Your task to perform on an android device: How much does a 2 bedroom apartment rent for in Houston? Image 0: 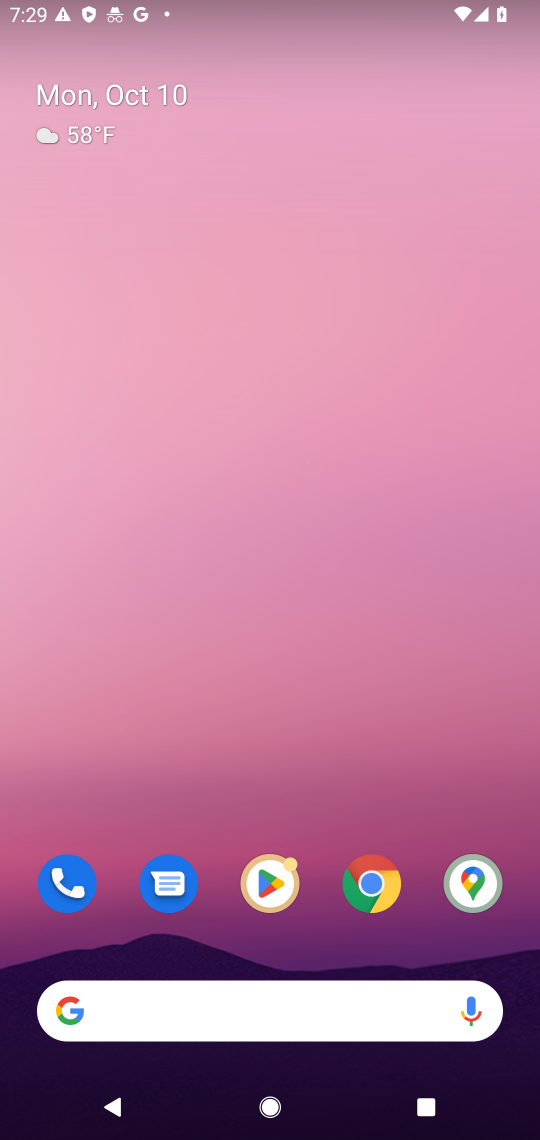
Step 0: drag from (348, 984) to (407, 340)
Your task to perform on an android device: How much does a 2 bedroom apartment rent for in Houston? Image 1: 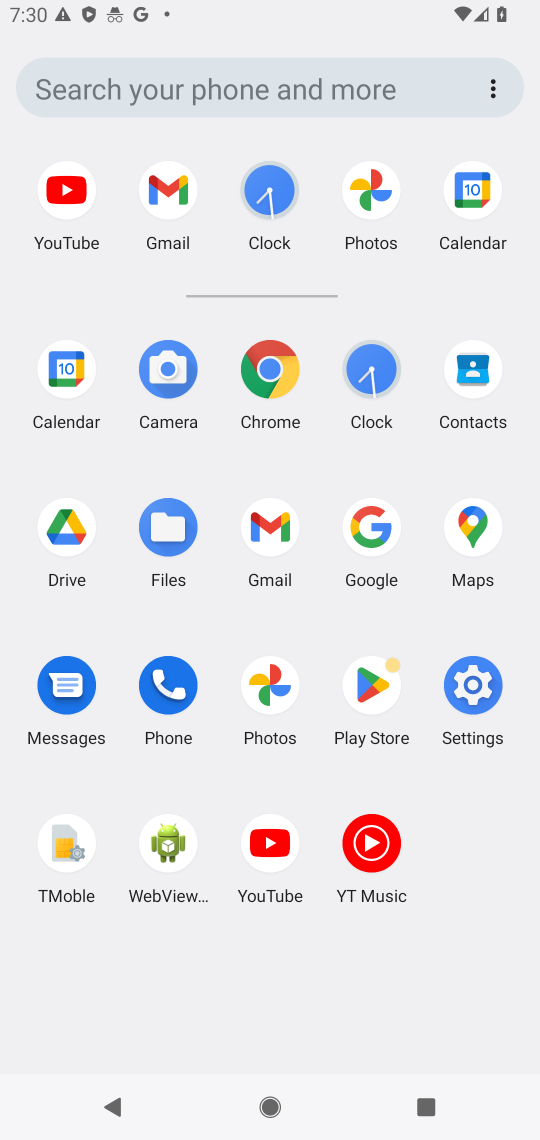
Step 1: click (385, 539)
Your task to perform on an android device: How much does a 2 bedroom apartment rent for in Houston? Image 2: 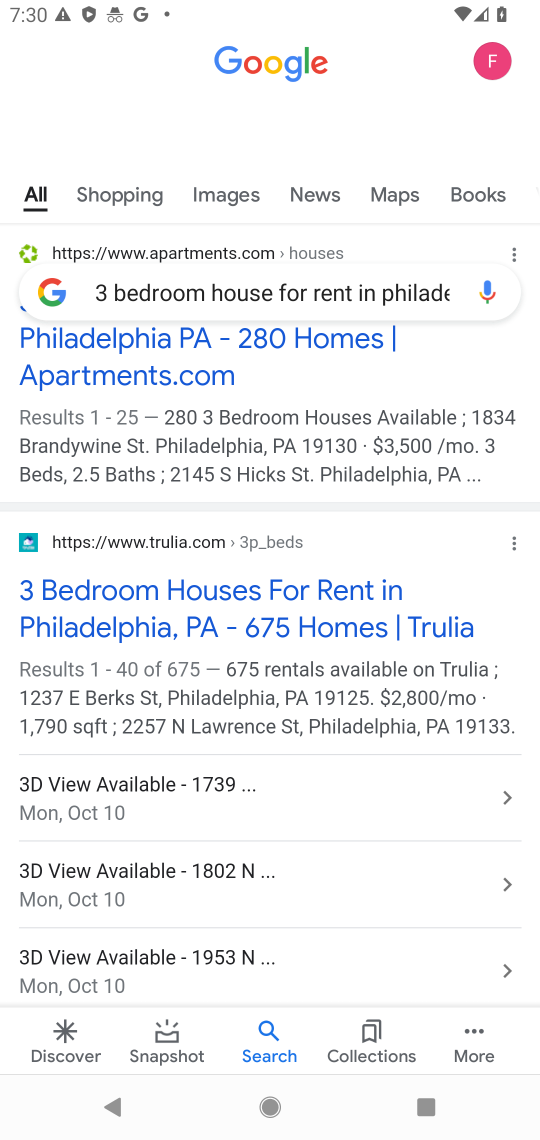
Step 2: click (422, 300)
Your task to perform on an android device: How much does a 2 bedroom apartment rent for in Houston? Image 3: 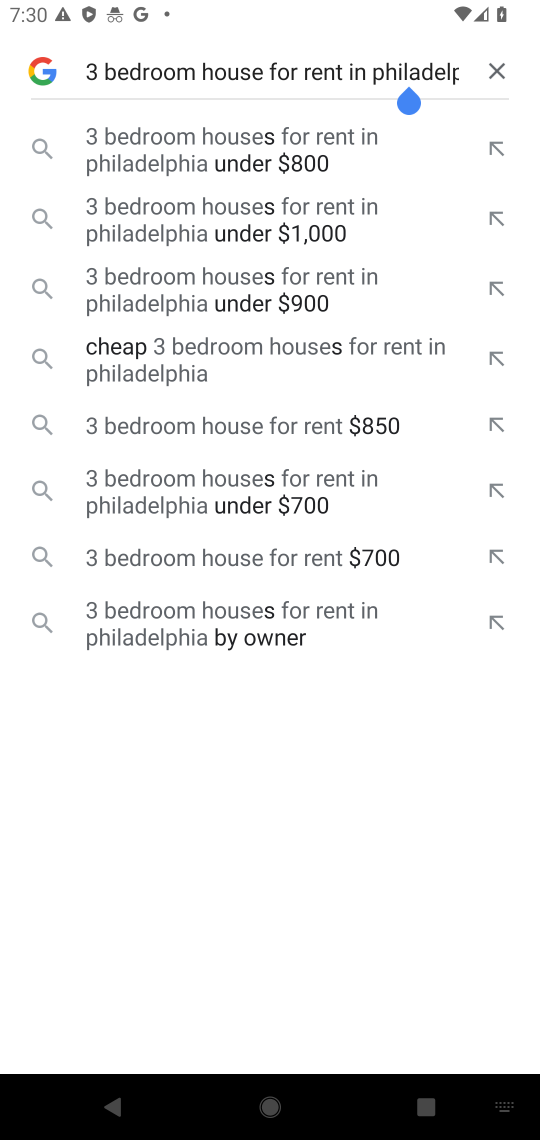
Step 3: click (491, 68)
Your task to perform on an android device: How much does a 2 bedroom apartment rent for in Houston? Image 4: 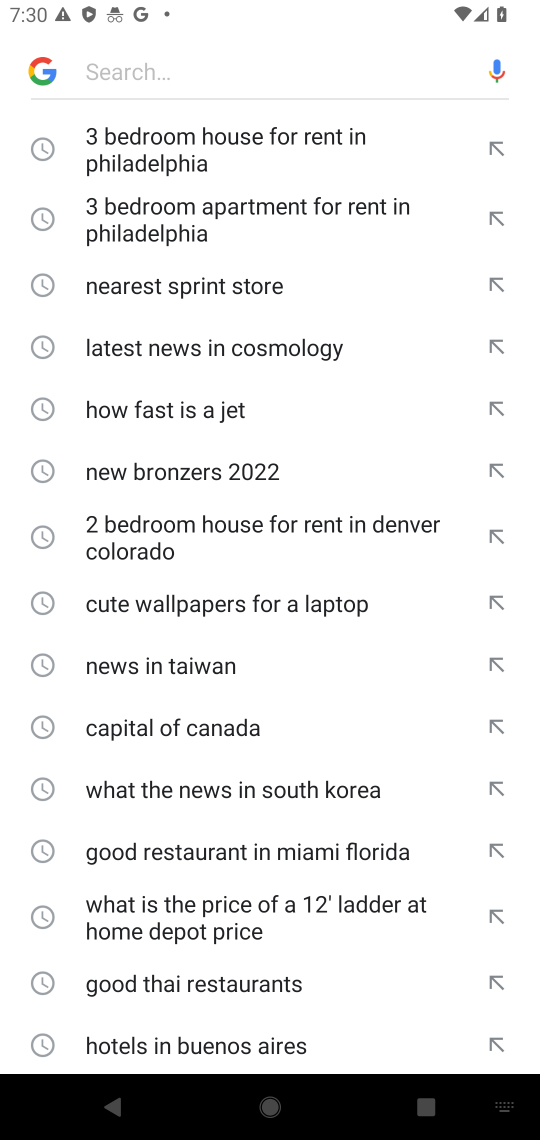
Step 4: type "3 bedroom apartment rent for in Philadelphia"
Your task to perform on an android device: How much does a 2 bedroom apartment rent for in Houston? Image 5: 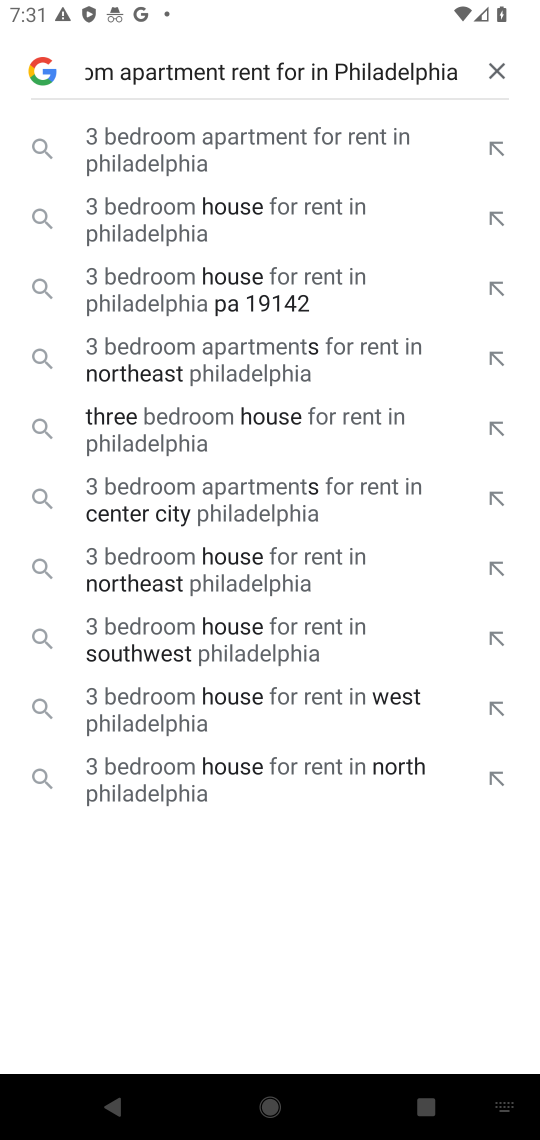
Step 5: click (223, 150)
Your task to perform on an android device: How much does a 2 bedroom apartment rent for in Houston? Image 6: 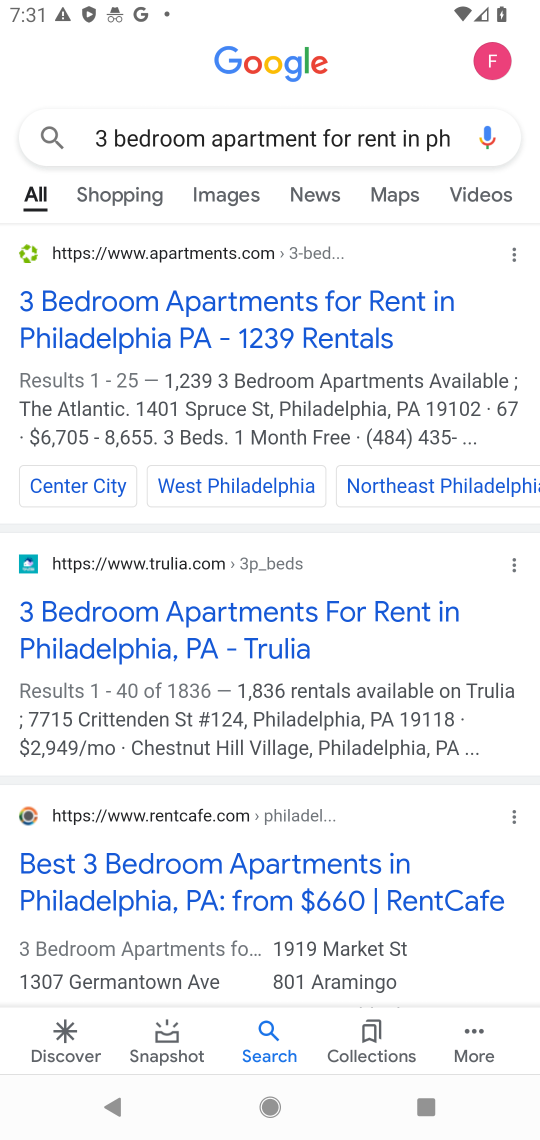
Step 6: task complete